Your task to perform on an android device: Open network settings Image 0: 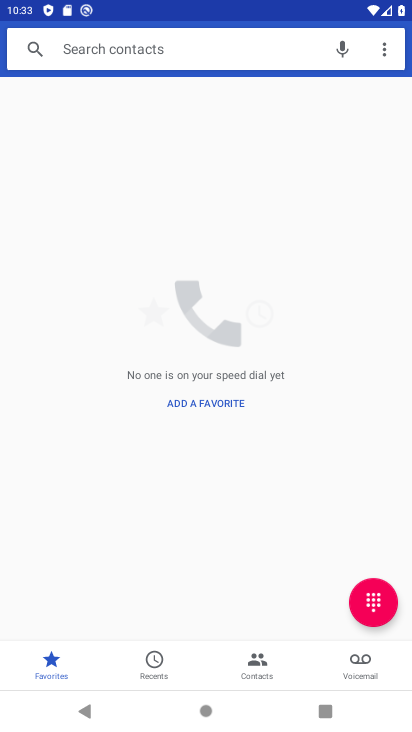
Step 0: press back button
Your task to perform on an android device: Open network settings Image 1: 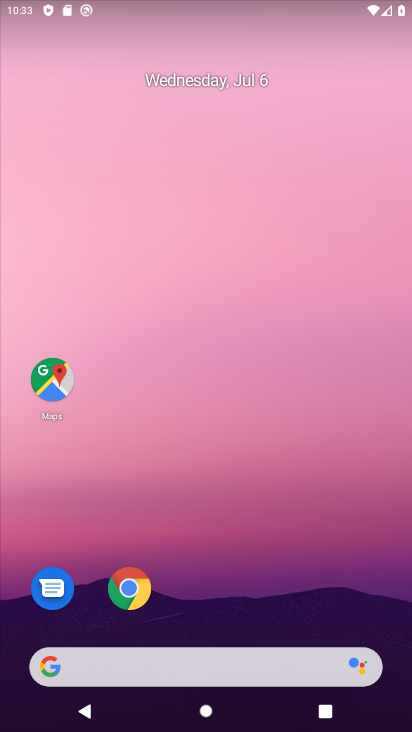
Step 1: drag from (270, 613) to (224, 432)
Your task to perform on an android device: Open network settings Image 2: 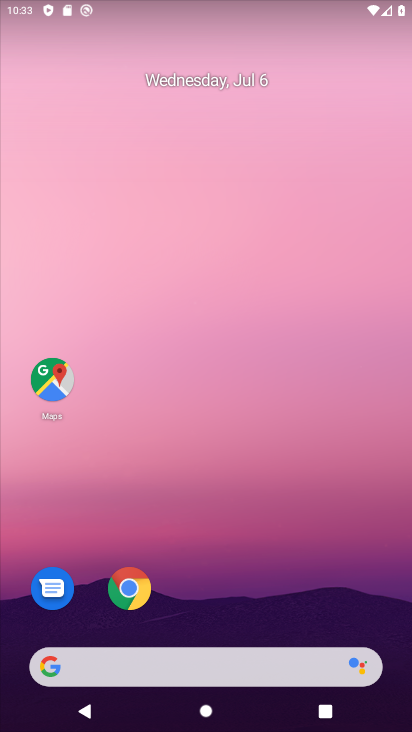
Step 2: drag from (281, 515) to (223, 245)
Your task to perform on an android device: Open network settings Image 3: 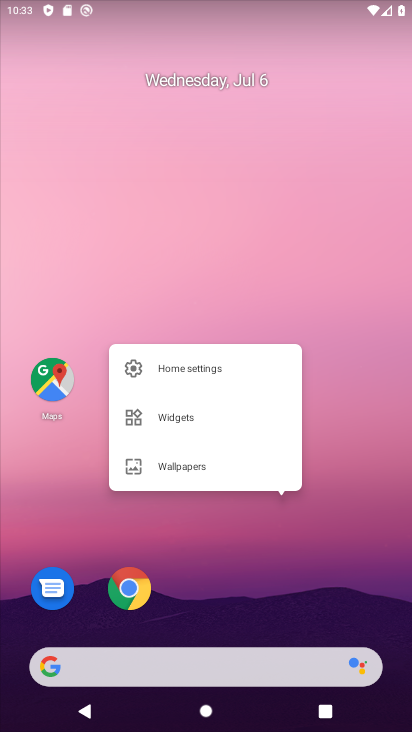
Step 3: drag from (300, 606) to (258, 391)
Your task to perform on an android device: Open network settings Image 4: 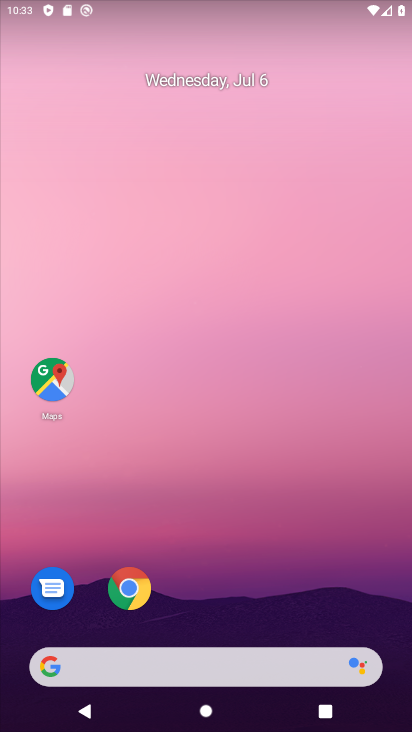
Step 4: drag from (257, 391) to (315, 334)
Your task to perform on an android device: Open network settings Image 5: 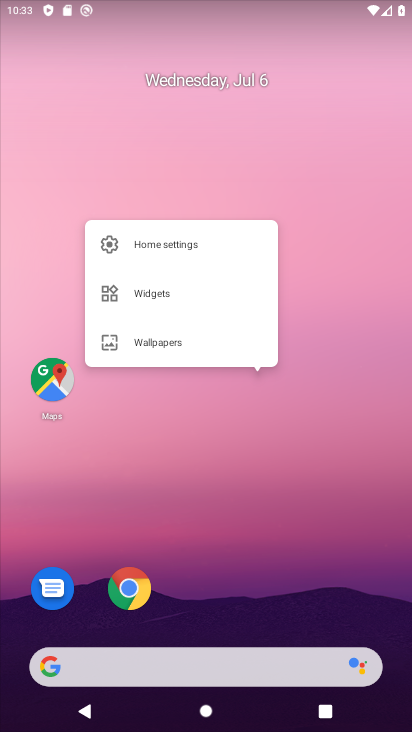
Step 5: drag from (266, 484) to (179, 249)
Your task to perform on an android device: Open network settings Image 6: 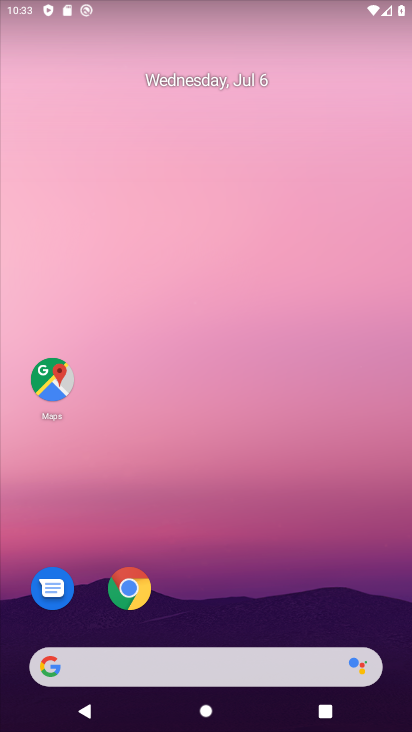
Step 6: drag from (278, 565) to (91, 9)
Your task to perform on an android device: Open network settings Image 7: 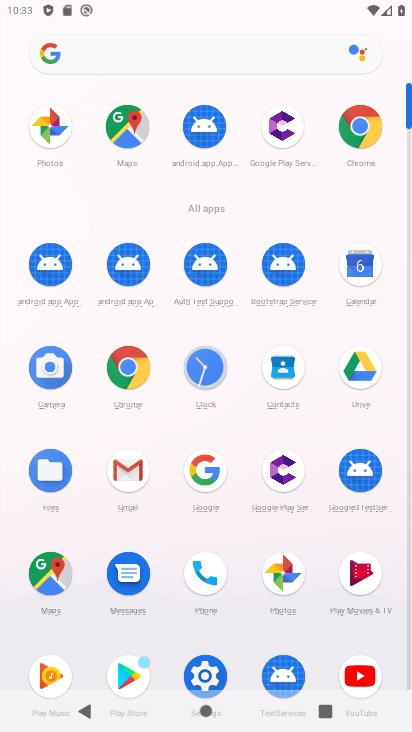
Step 7: click (211, 672)
Your task to perform on an android device: Open network settings Image 8: 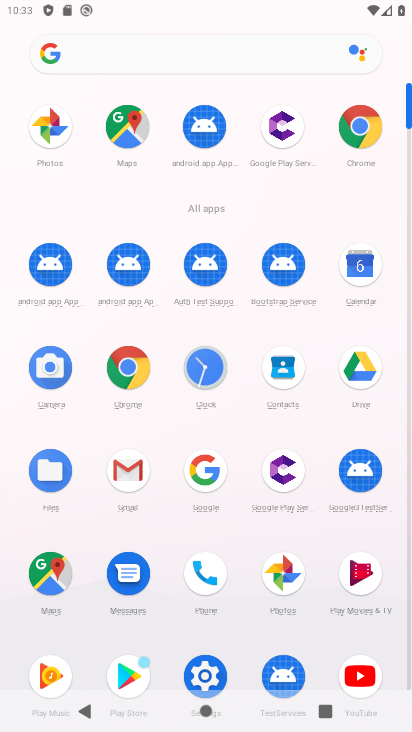
Step 8: click (200, 665)
Your task to perform on an android device: Open network settings Image 9: 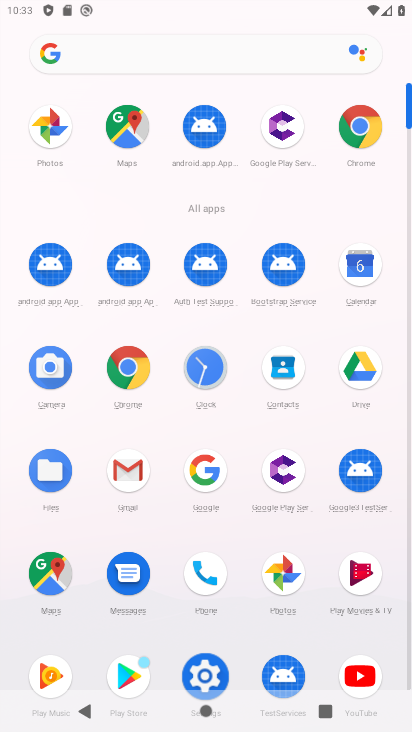
Step 9: click (201, 669)
Your task to perform on an android device: Open network settings Image 10: 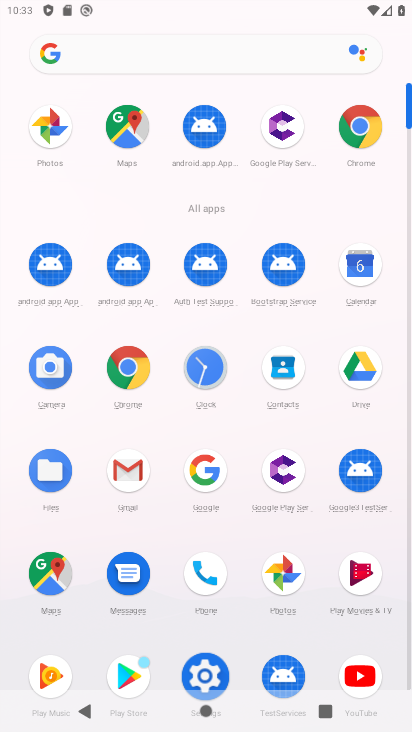
Step 10: click (205, 672)
Your task to perform on an android device: Open network settings Image 11: 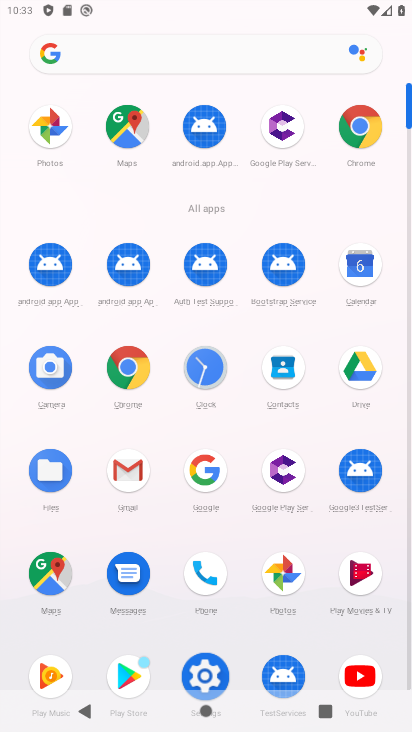
Step 11: click (200, 663)
Your task to perform on an android device: Open network settings Image 12: 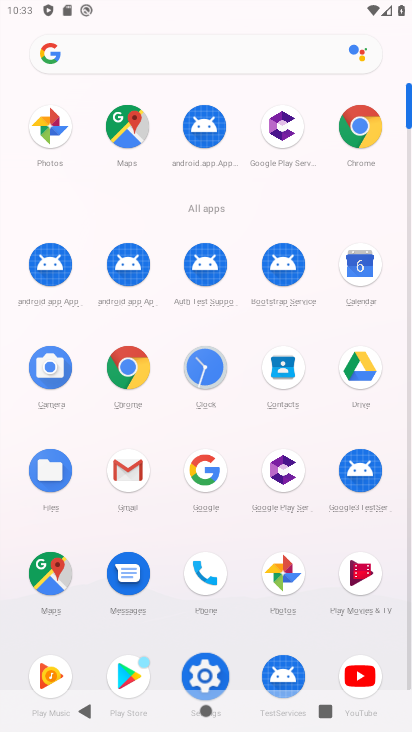
Step 12: click (199, 663)
Your task to perform on an android device: Open network settings Image 13: 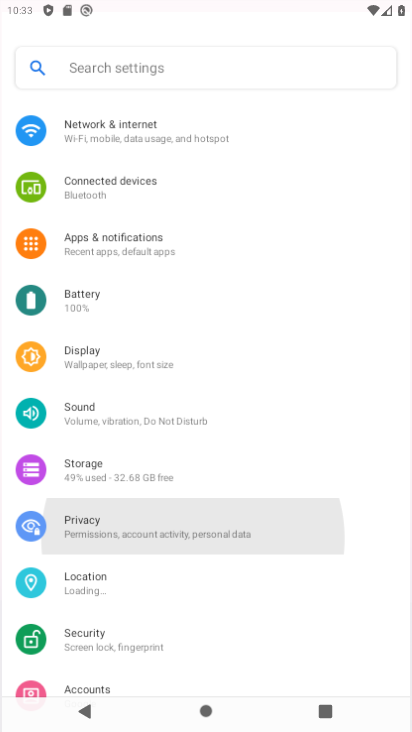
Step 13: click (228, 665)
Your task to perform on an android device: Open network settings Image 14: 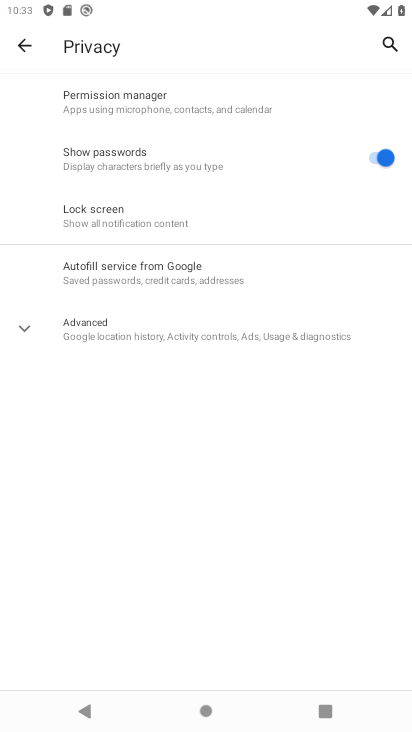
Step 14: click (26, 40)
Your task to perform on an android device: Open network settings Image 15: 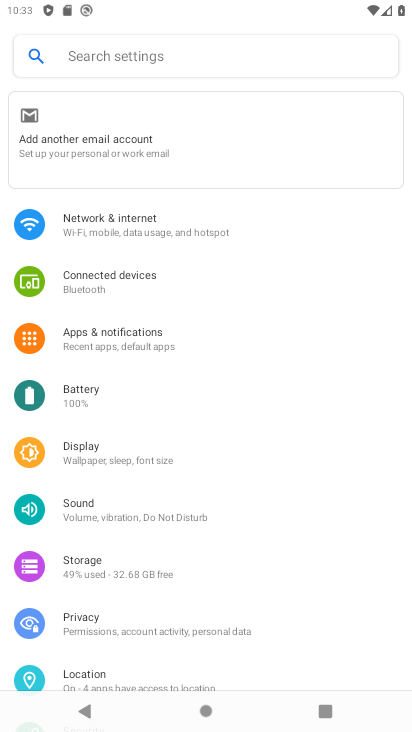
Step 15: click (21, 40)
Your task to perform on an android device: Open network settings Image 16: 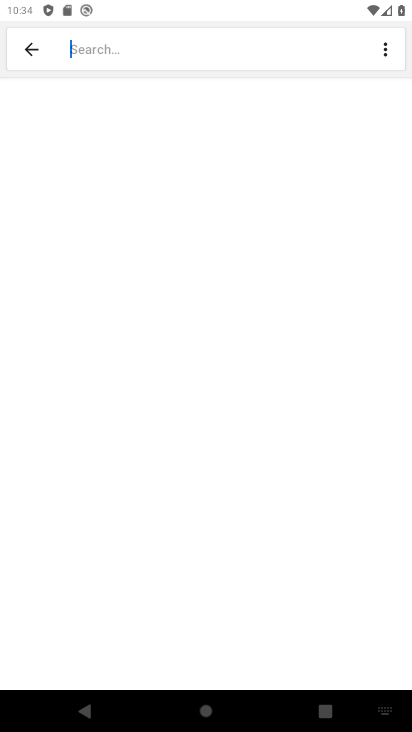
Step 16: click (100, 224)
Your task to perform on an android device: Open network settings Image 17: 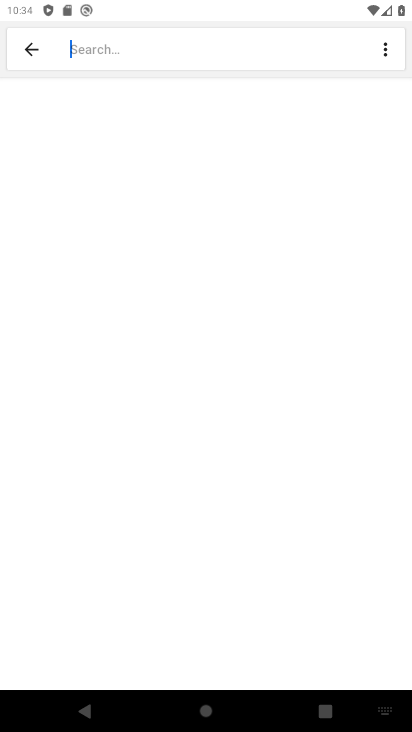
Step 17: task complete